Your task to perform on an android device: Open settings on Google Maps Image 0: 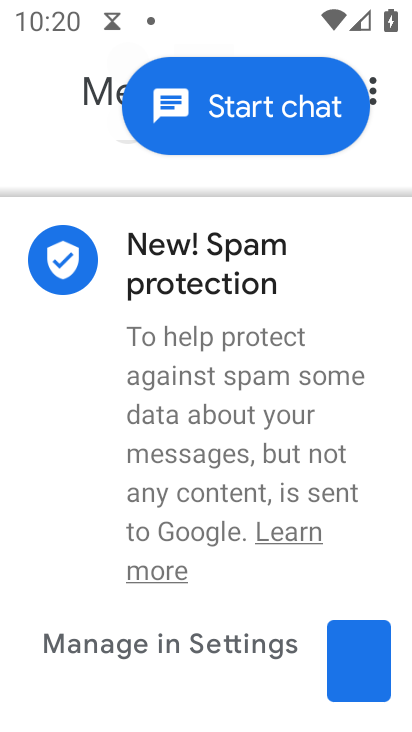
Step 0: press home button
Your task to perform on an android device: Open settings on Google Maps Image 1: 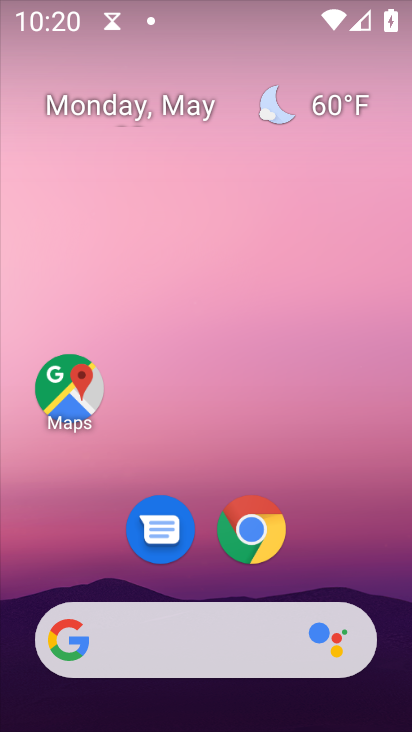
Step 1: click (50, 382)
Your task to perform on an android device: Open settings on Google Maps Image 2: 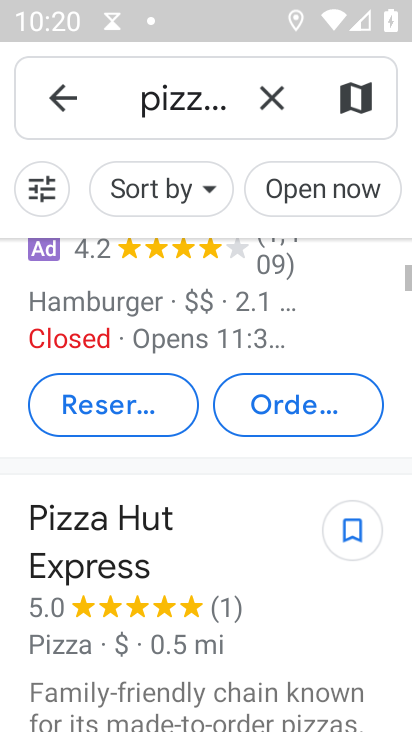
Step 2: click (266, 96)
Your task to perform on an android device: Open settings on Google Maps Image 3: 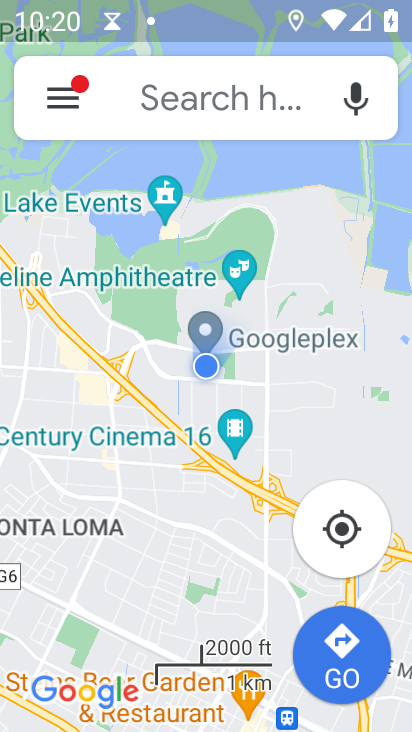
Step 3: click (76, 105)
Your task to perform on an android device: Open settings on Google Maps Image 4: 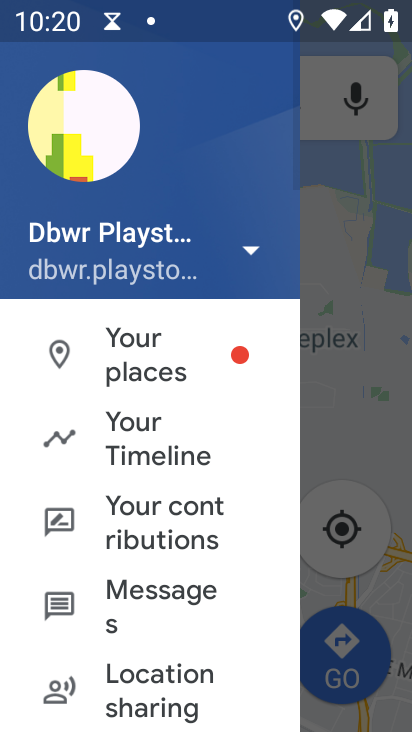
Step 4: drag from (153, 594) to (169, 166)
Your task to perform on an android device: Open settings on Google Maps Image 5: 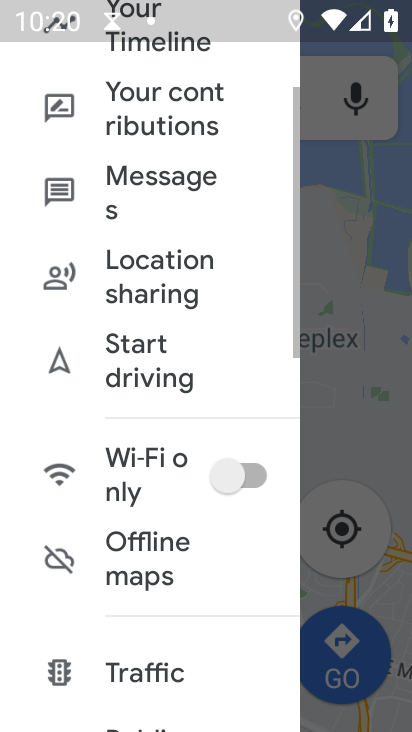
Step 5: drag from (167, 627) to (163, 205)
Your task to perform on an android device: Open settings on Google Maps Image 6: 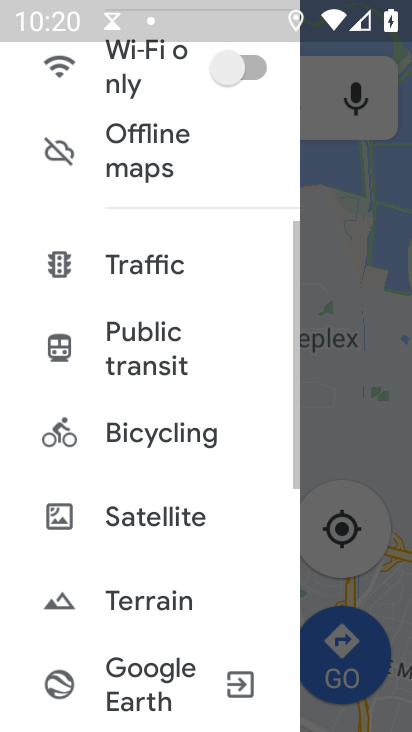
Step 6: drag from (155, 630) to (149, 168)
Your task to perform on an android device: Open settings on Google Maps Image 7: 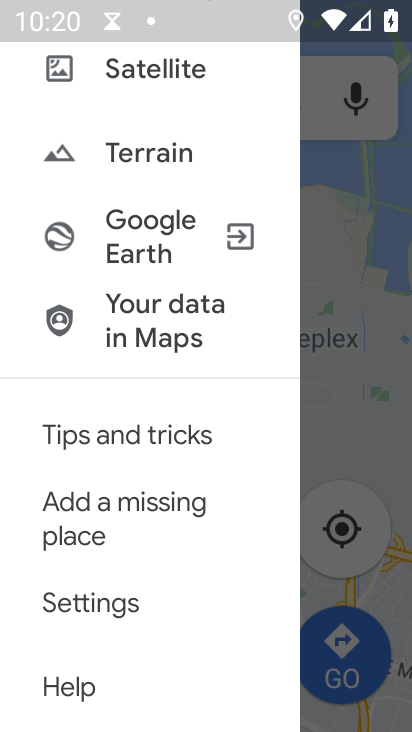
Step 7: click (101, 613)
Your task to perform on an android device: Open settings on Google Maps Image 8: 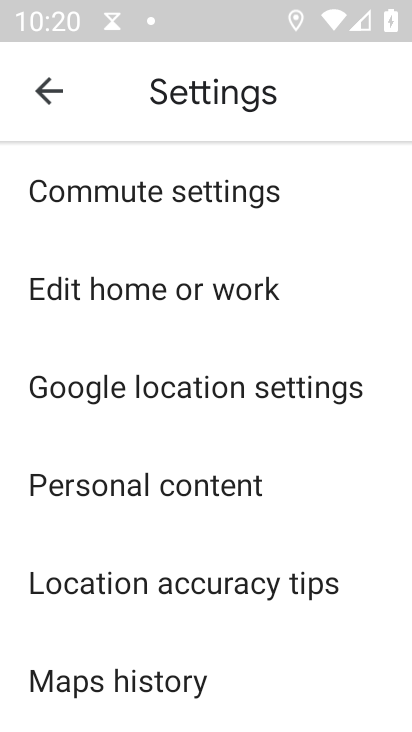
Step 8: task complete